Your task to perform on an android device: delete the emails in spam in the gmail app Image 0: 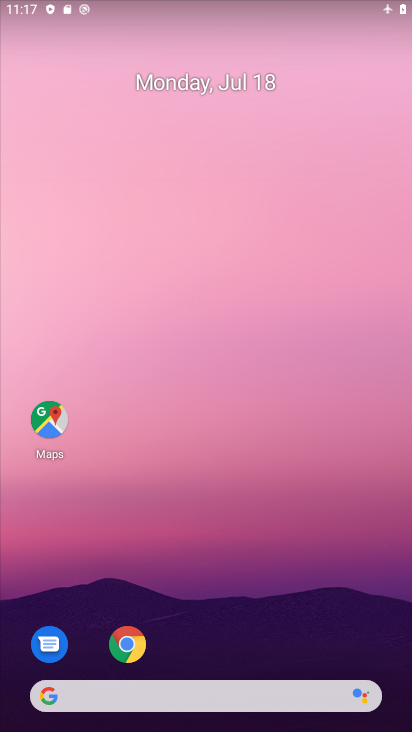
Step 0: drag from (202, 649) to (193, 16)
Your task to perform on an android device: delete the emails in spam in the gmail app Image 1: 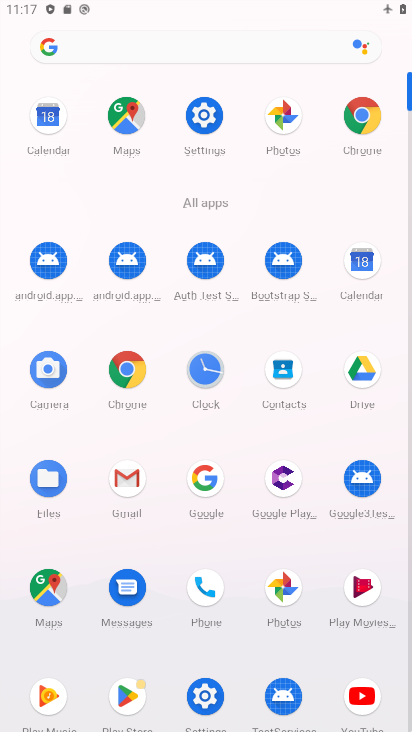
Step 1: click (128, 472)
Your task to perform on an android device: delete the emails in spam in the gmail app Image 2: 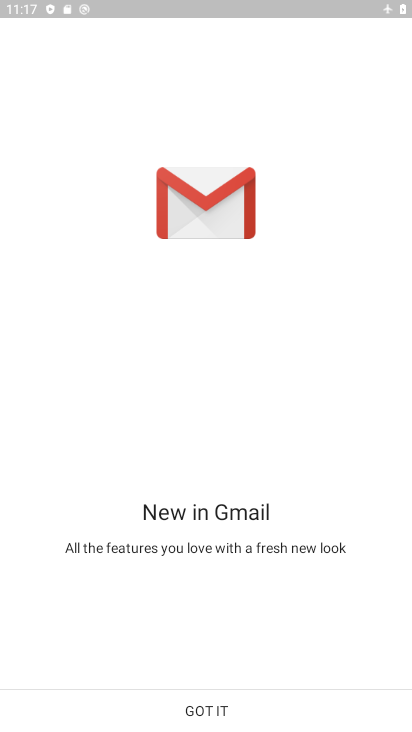
Step 2: click (170, 694)
Your task to perform on an android device: delete the emails in spam in the gmail app Image 3: 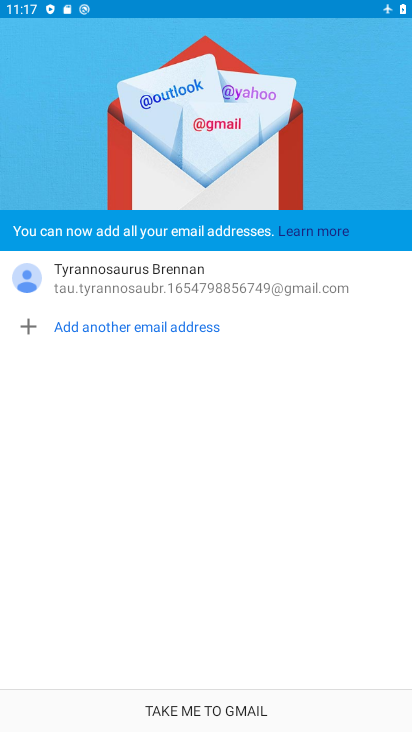
Step 3: click (171, 694)
Your task to perform on an android device: delete the emails in spam in the gmail app Image 4: 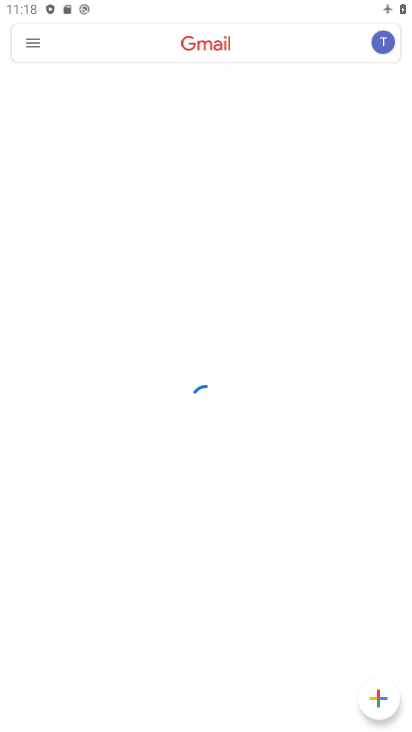
Step 4: click (35, 50)
Your task to perform on an android device: delete the emails in spam in the gmail app Image 5: 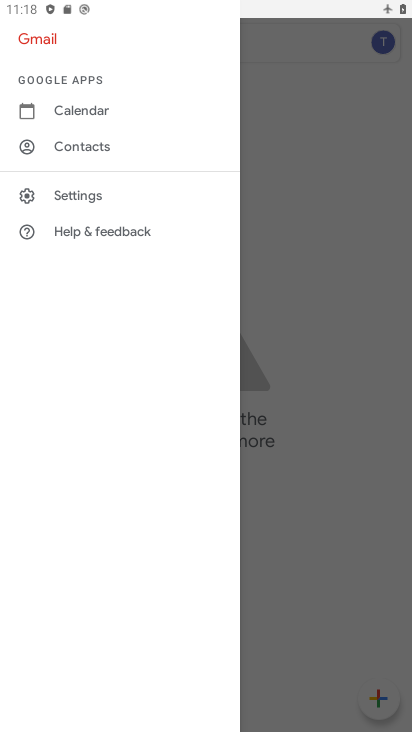
Step 5: click (264, 281)
Your task to perform on an android device: delete the emails in spam in the gmail app Image 6: 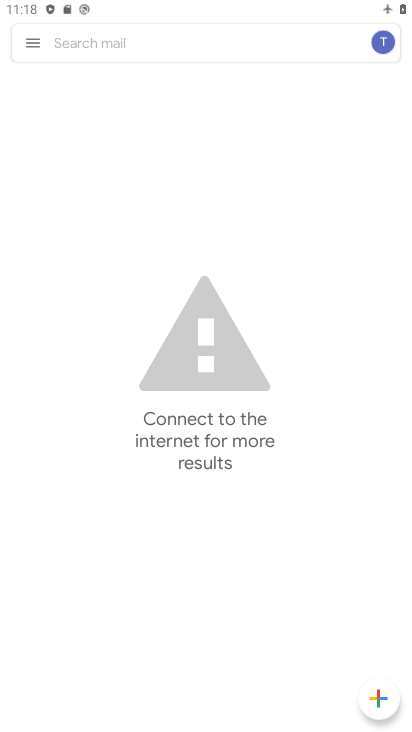
Step 6: click (31, 42)
Your task to perform on an android device: delete the emails in spam in the gmail app Image 7: 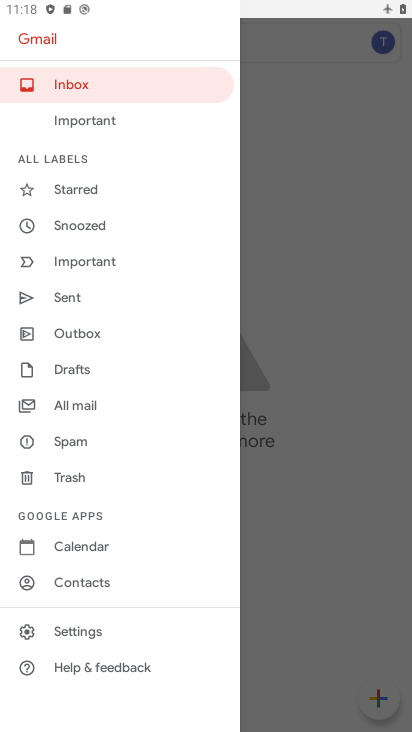
Step 7: click (77, 437)
Your task to perform on an android device: delete the emails in spam in the gmail app Image 8: 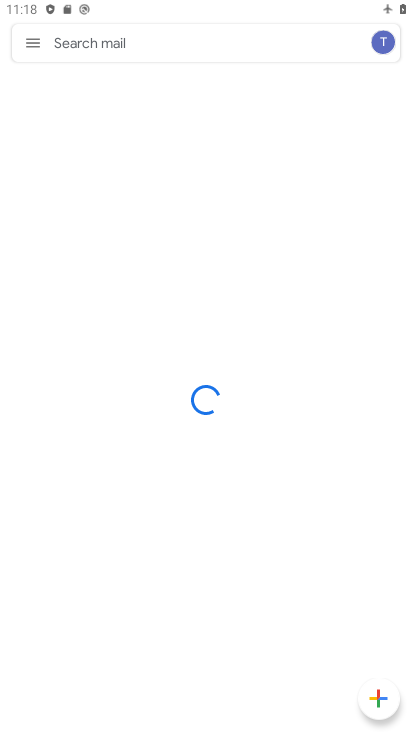
Step 8: task complete